Your task to perform on an android device: change the upload size in google photos Image 0: 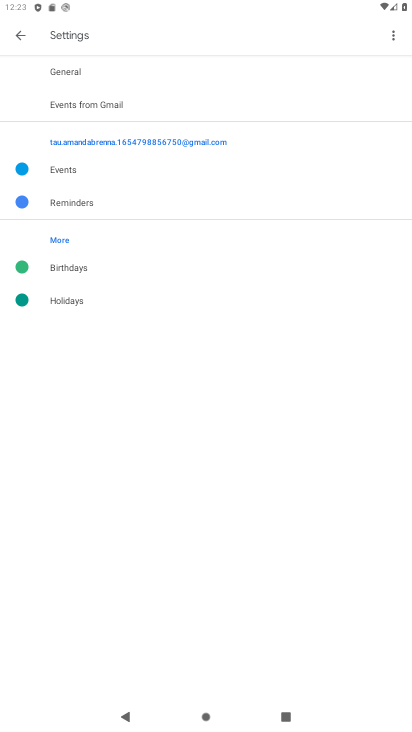
Step 0: press home button
Your task to perform on an android device: change the upload size in google photos Image 1: 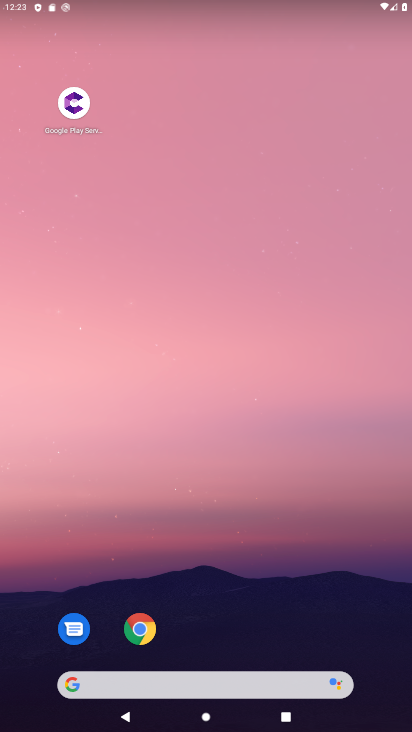
Step 1: drag from (203, 646) to (151, 108)
Your task to perform on an android device: change the upload size in google photos Image 2: 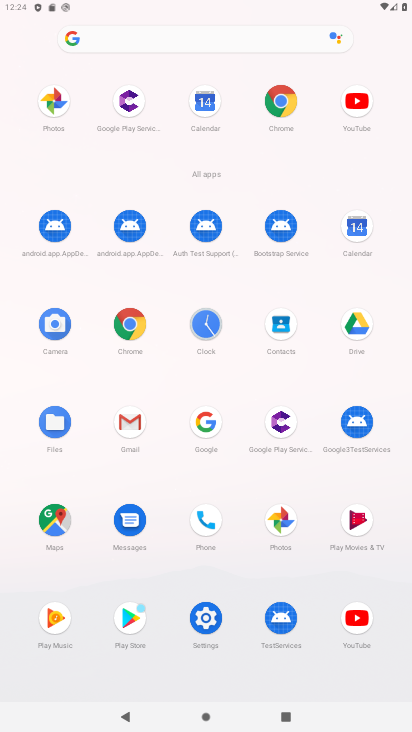
Step 2: click (286, 527)
Your task to perform on an android device: change the upload size in google photos Image 3: 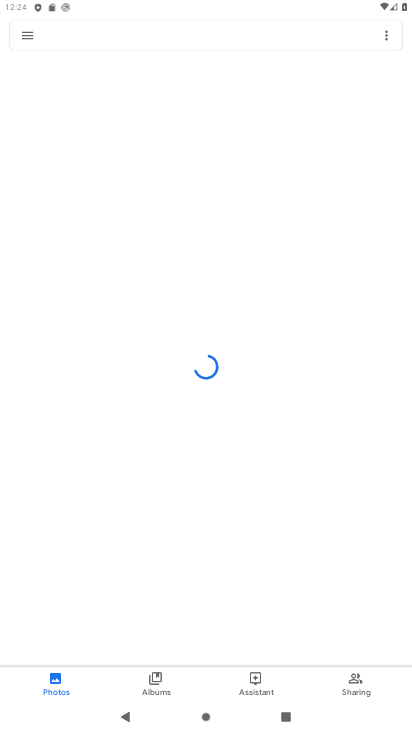
Step 3: click (28, 37)
Your task to perform on an android device: change the upload size in google photos Image 4: 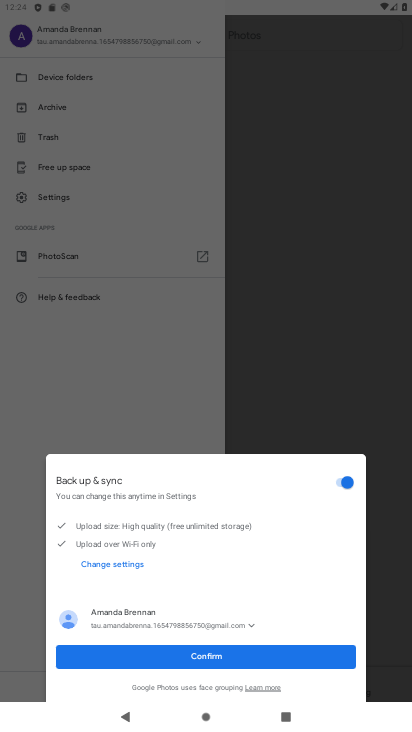
Step 4: click (129, 651)
Your task to perform on an android device: change the upload size in google photos Image 5: 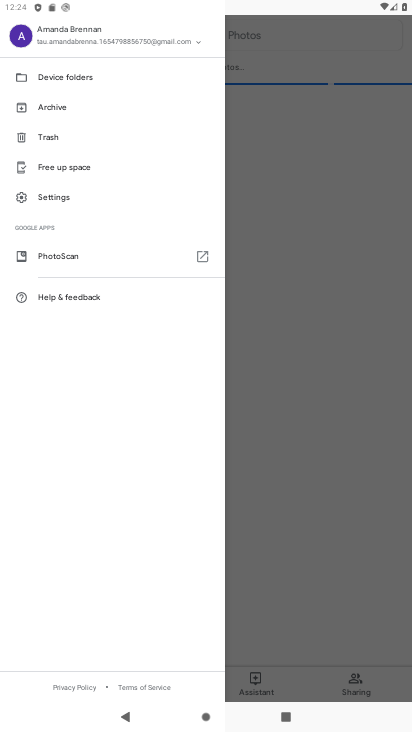
Step 5: click (63, 195)
Your task to perform on an android device: change the upload size in google photos Image 6: 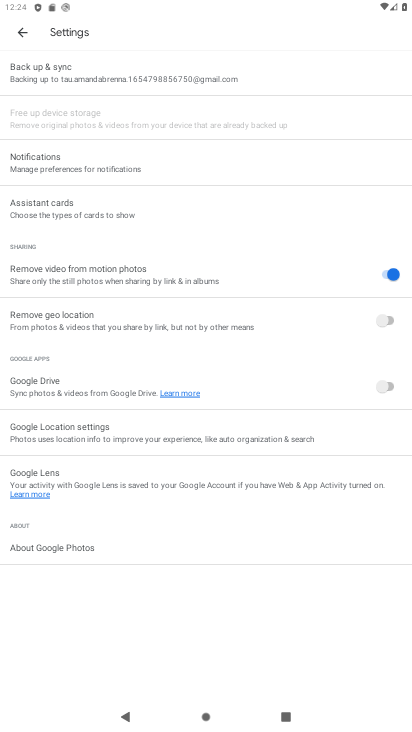
Step 6: click (54, 73)
Your task to perform on an android device: change the upload size in google photos Image 7: 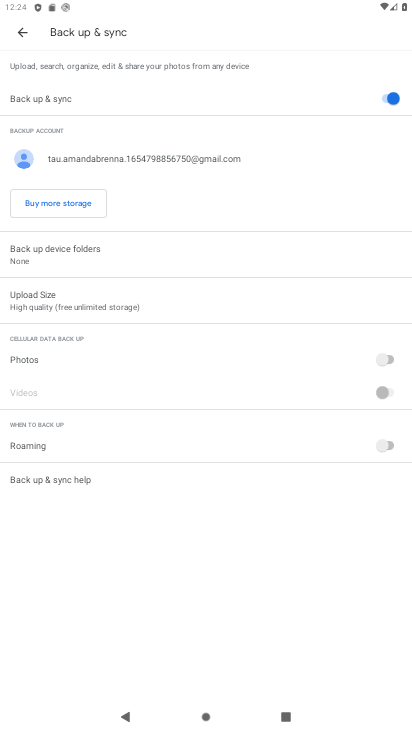
Step 7: click (101, 295)
Your task to perform on an android device: change the upload size in google photos Image 8: 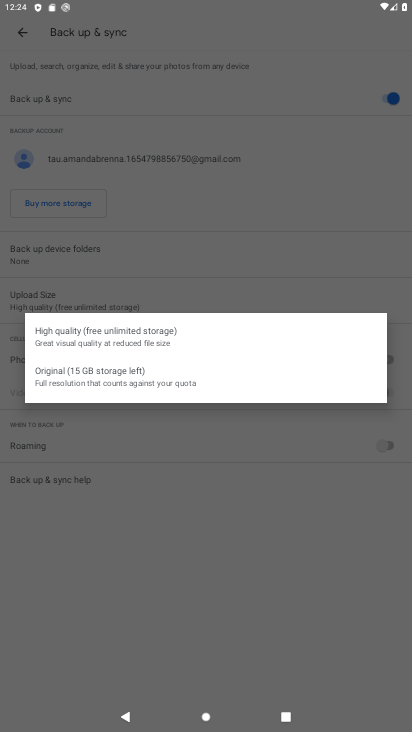
Step 8: click (84, 356)
Your task to perform on an android device: change the upload size in google photos Image 9: 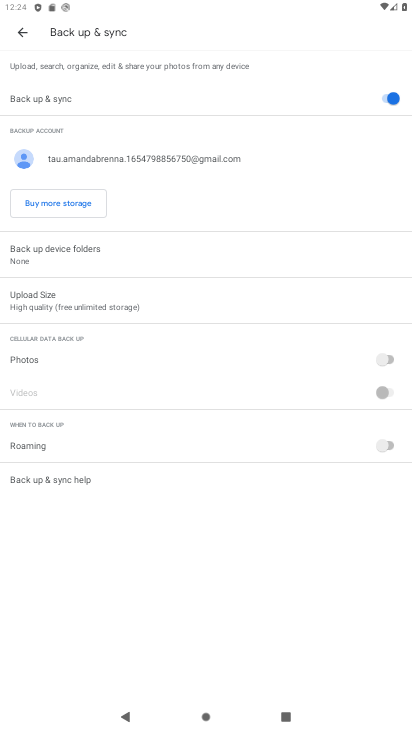
Step 9: click (79, 295)
Your task to perform on an android device: change the upload size in google photos Image 10: 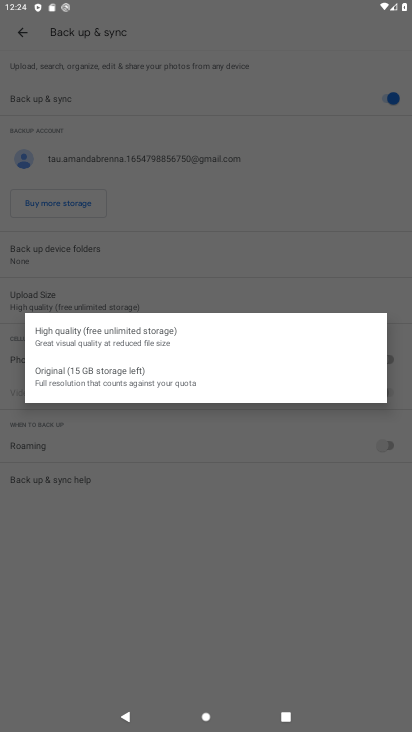
Step 10: click (61, 385)
Your task to perform on an android device: change the upload size in google photos Image 11: 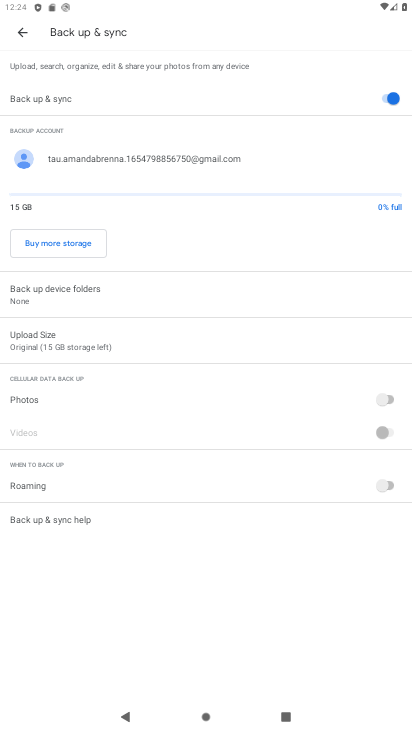
Step 11: task complete